Your task to perform on an android device: Open accessibility settings Image 0: 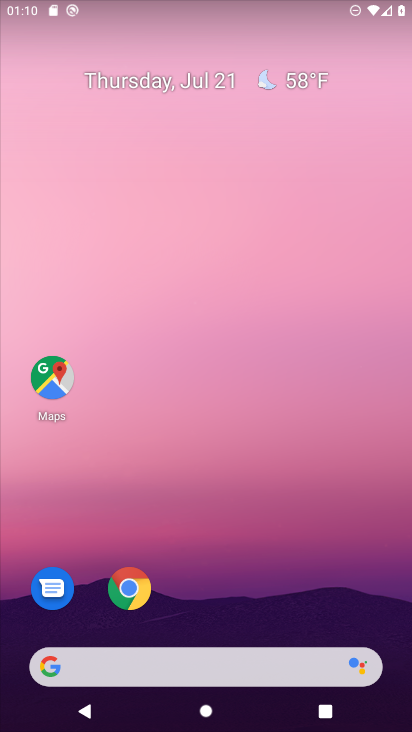
Step 0: drag from (256, 618) to (258, 1)
Your task to perform on an android device: Open accessibility settings Image 1: 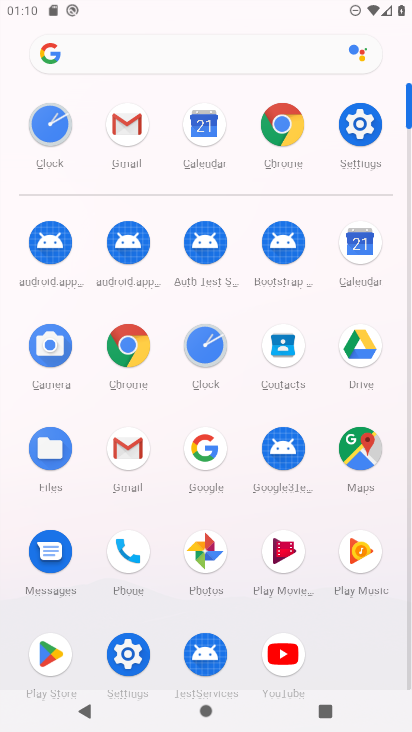
Step 1: click (359, 136)
Your task to perform on an android device: Open accessibility settings Image 2: 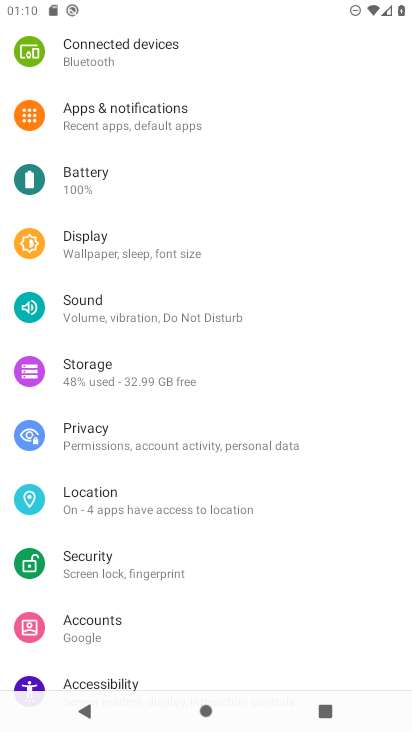
Step 2: drag from (123, 641) to (162, 429)
Your task to perform on an android device: Open accessibility settings Image 3: 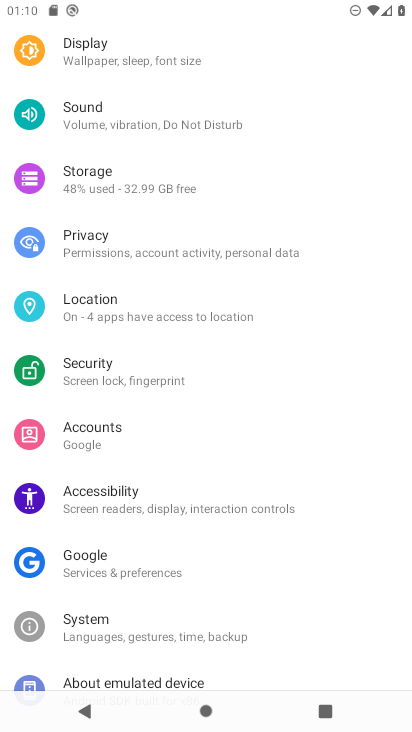
Step 3: click (116, 507)
Your task to perform on an android device: Open accessibility settings Image 4: 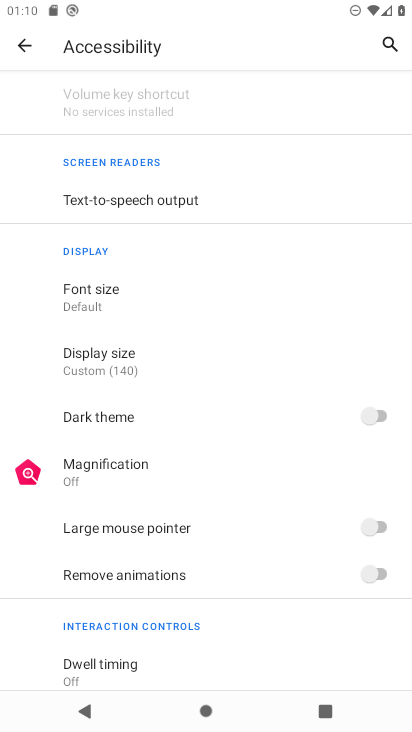
Step 4: task complete